Your task to perform on an android device: Go to network settings Image 0: 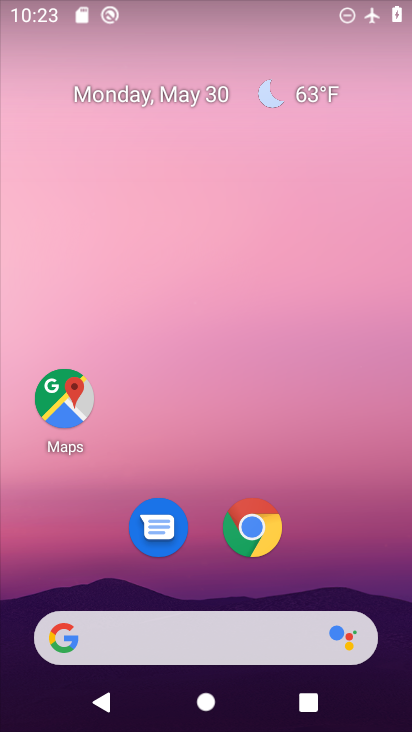
Step 0: drag from (325, 517) to (292, 163)
Your task to perform on an android device: Go to network settings Image 1: 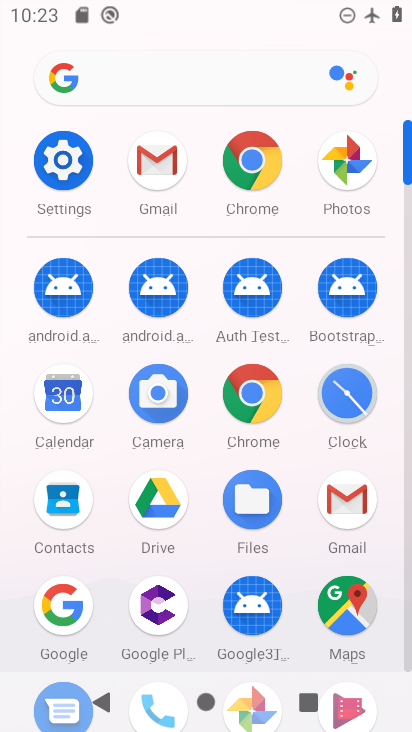
Step 1: click (65, 152)
Your task to perform on an android device: Go to network settings Image 2: 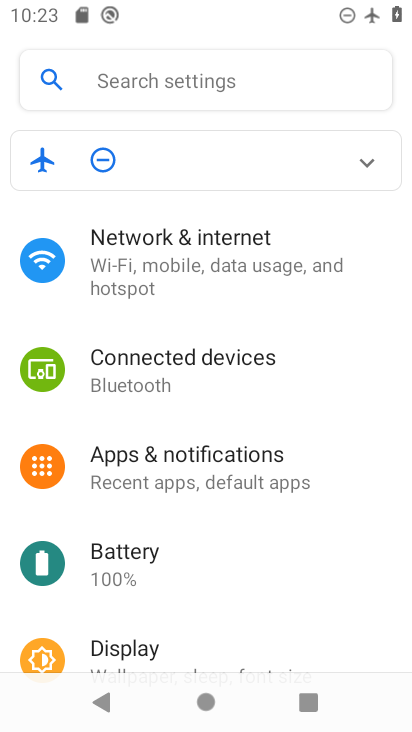
Step 2: click (138, 239)
Your task to perform on an android device: Go to network settings Image 3: 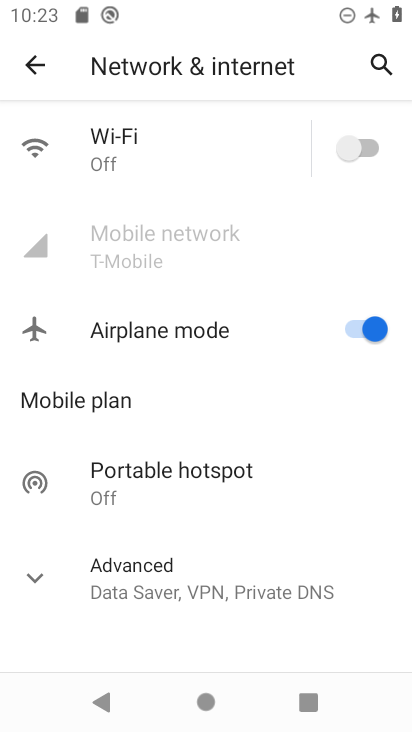
Step 3: task complete